Your task to perform on an android device: What is the news today? Image 0: 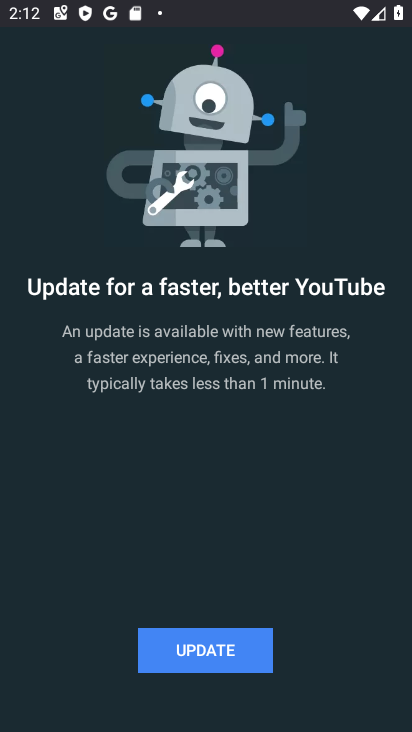
Step 0: press home button
Your task to perform on an android device: What is the news today? Image 1: 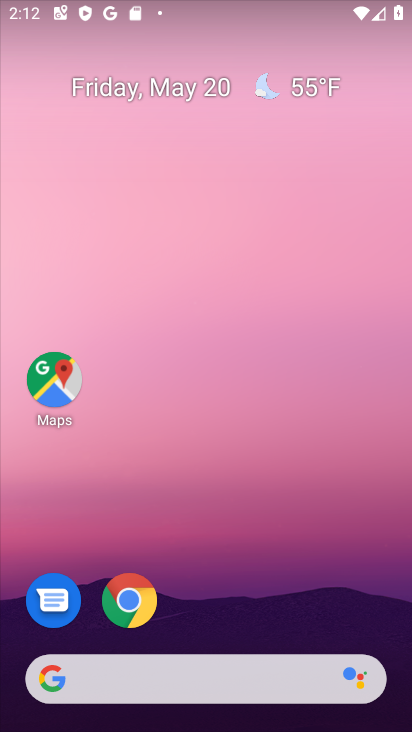
Step 1: drag from (254, 684) to (306, 1)
Your task to perform on an android device: What is the news today? Image 2: 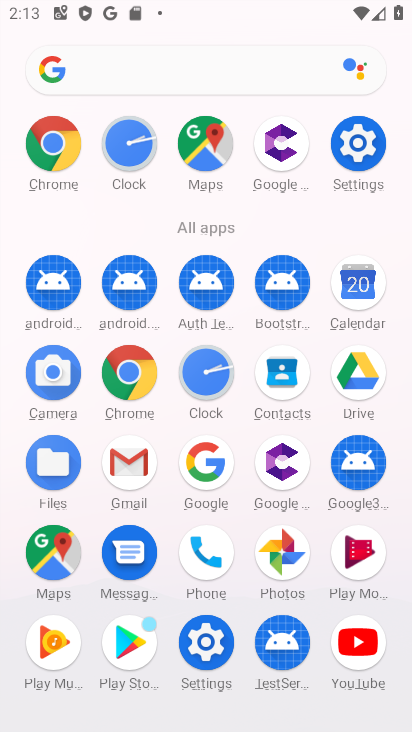
Step 2: click (207, 488)
Your task to perform on an android device: What is the news today? Image 3: 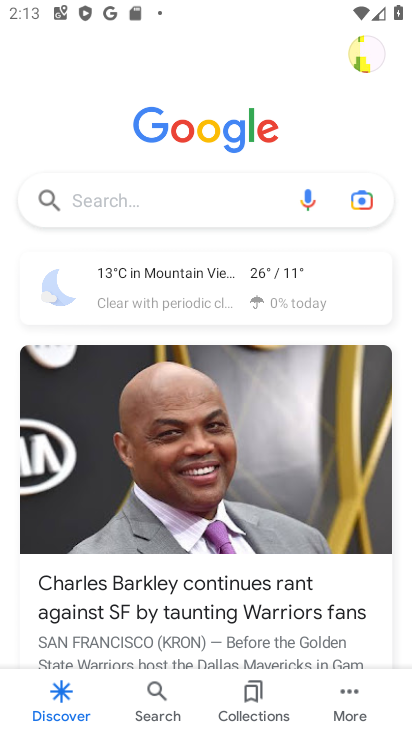
Step 3: click (194, 210)
Your task to perform on an android device: What is the news today? Image 4: 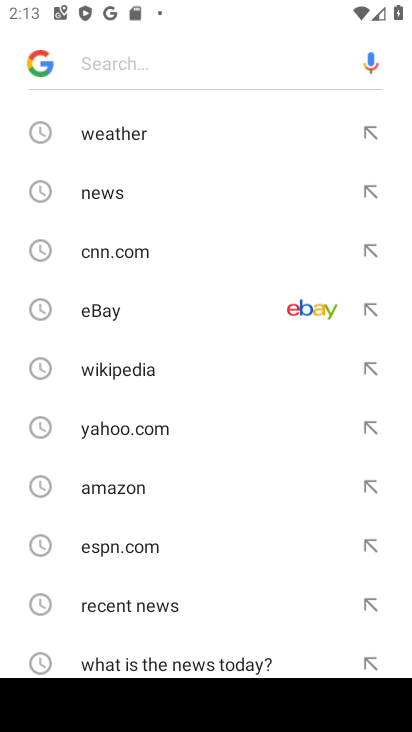
Step 4: click (178, 200)
Your task to perform on an android device: What is the news today? Image 5: 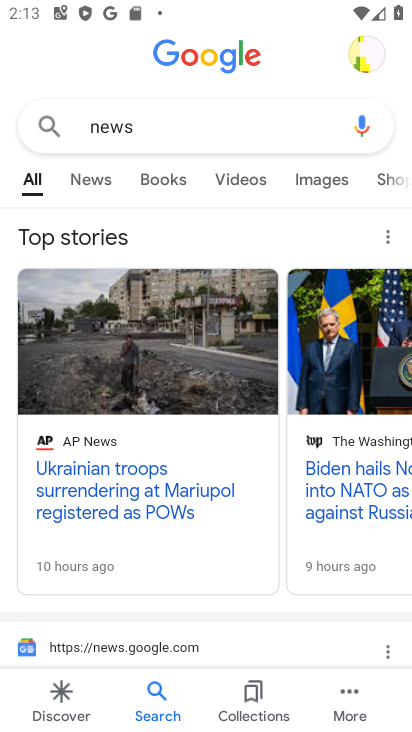
Step 5: click (102, 188)
Your task to perform on an android device: What is the news today? Image 6: 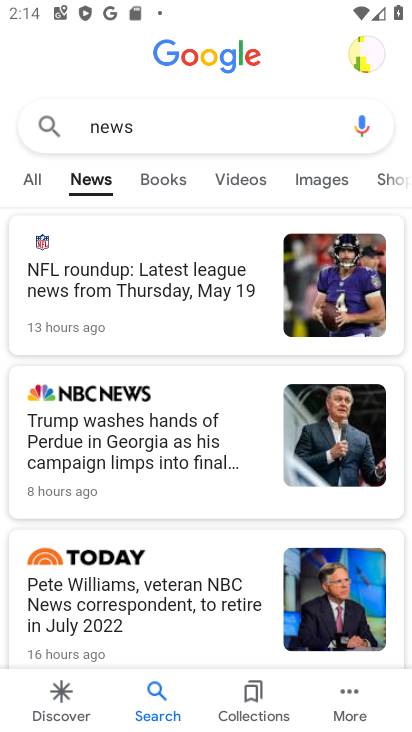
Step 6: task complete